Your task to perform on an android device: change the clock display to show seconds Image 0: 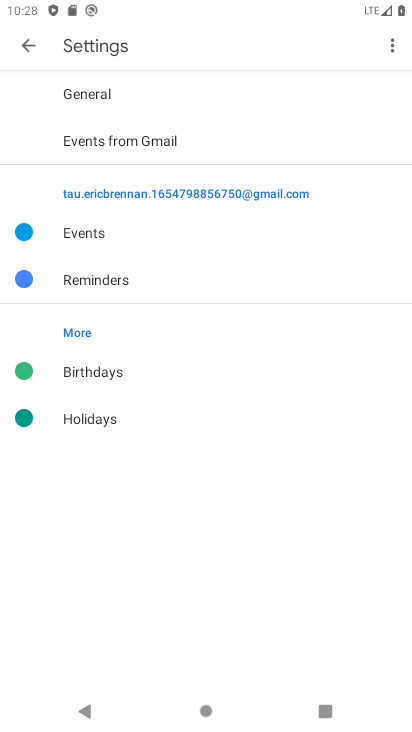
Step 0: press home button
Your task to perform on an android device: change the clock display to show seconds Image 1: 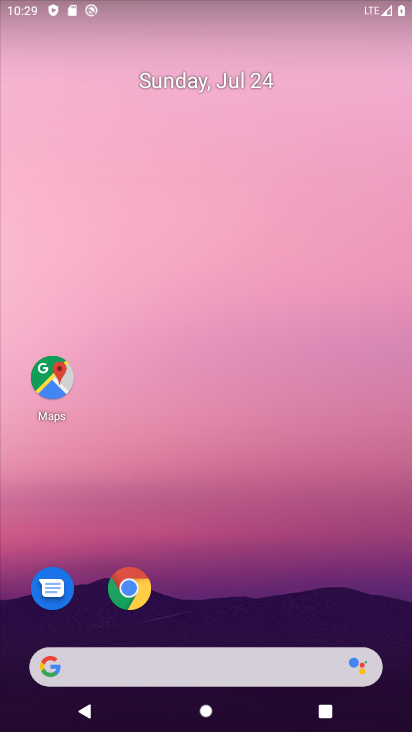
Step 1: drag from (157, 488) to (230, 123)
Your task to perform on an android device: change the clock display to show seconds Image 2: 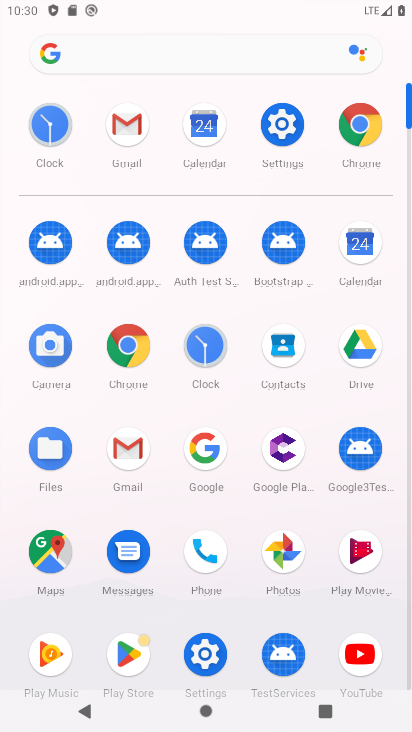
Step 2: click (217, 344)
Your task to perform on an android device: change the clock display to show seconds Image 3: 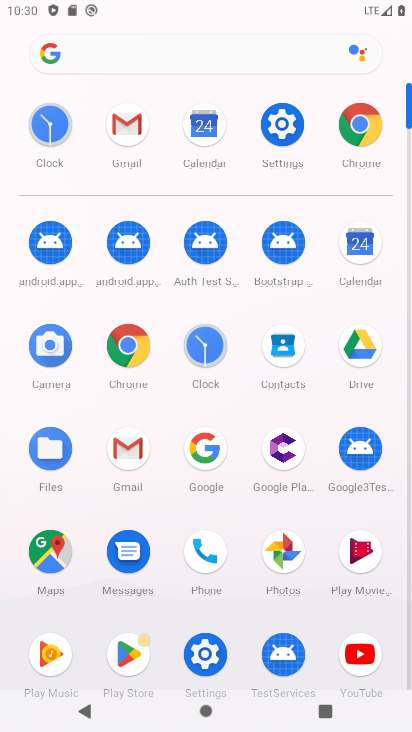
Step 3: click (217, 344)
Your task to perform on an android device: change the clock display to show seconds Image 4: 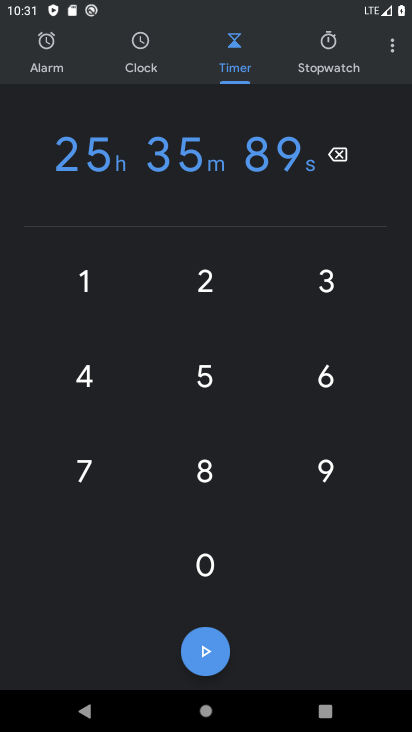
Step 4: click (396, 47)
Your task to perform on an android device: change the clock display to show seconds Image 5: 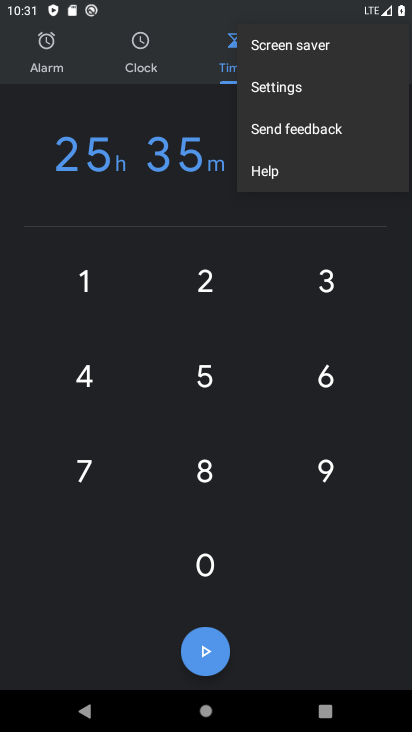
Step 5: click (309, 83)
Your task to perform on an android device: change the clock display to show seconds Image 6: 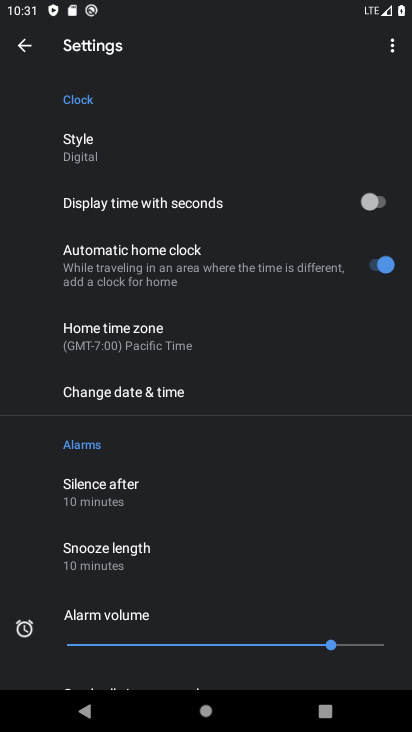
Step 6: click (378, 193)
Your task to perform on an android device: change the clock display to show seconds Image 7: 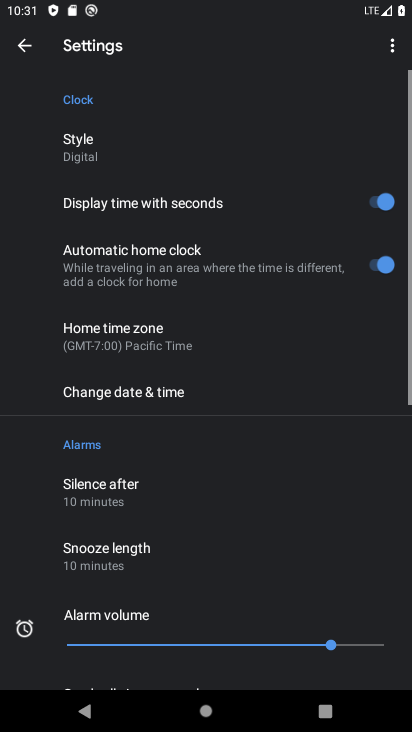
Step 7: task complete